Your task to perform on an android device: set default search engine in the chrome app Image 0: 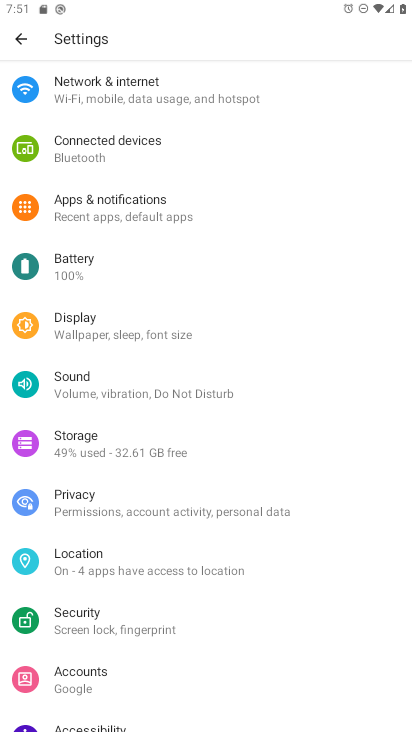
Step 0: press home button
Your task to perform on an android device: set default search engine in the chrome app Image 1: 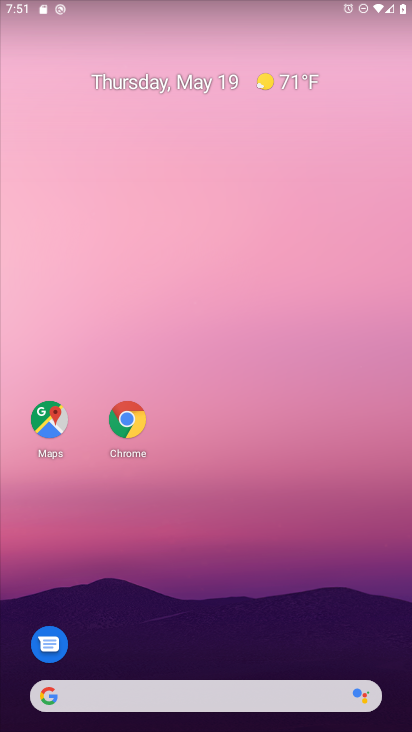
Step 1: drag from (140, 668) to (261, 220)
Your task to perform on an android device: set default search engine in the chrome app Image 2: 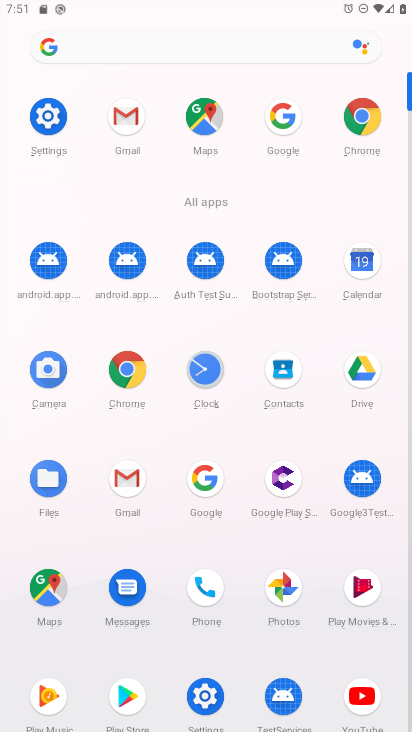
Step 2: click (365, 121)
Your task to perform on an android device: set default search engine in the chrome app Image 3: 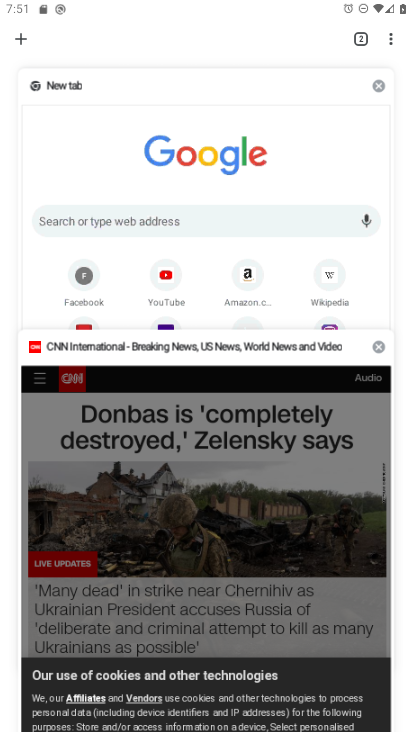
Step 3: click (392, 44)
Your task to perform on an android device: set default search engine in the chrome app Image 4: 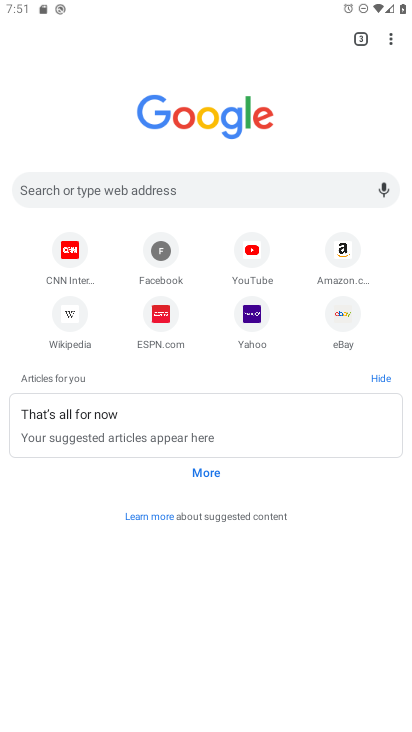
Step 4: click (386, 41)
Your task to perform on an android device: set default search engine in the chrome app Image 5: 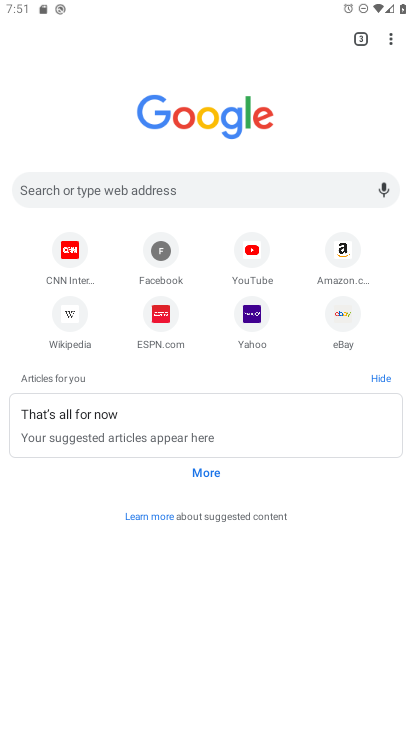
Step 5: click (390, 37)
Your task to perform on an android device: set default search engine in the chrome app Image 6: 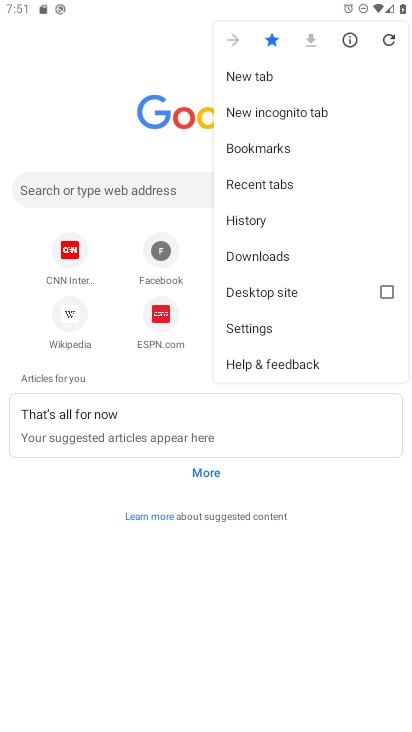
Step 6: click (262, 330)
Your task to perform on an android device: set default search engine in the chrome app Image 7: 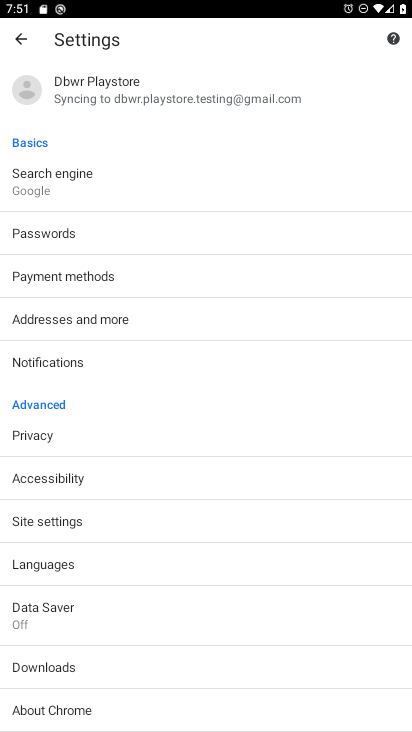
Step 7: click (55, 178)
Your task to perform on an android device: set default search engine in the chrome app Image 8: 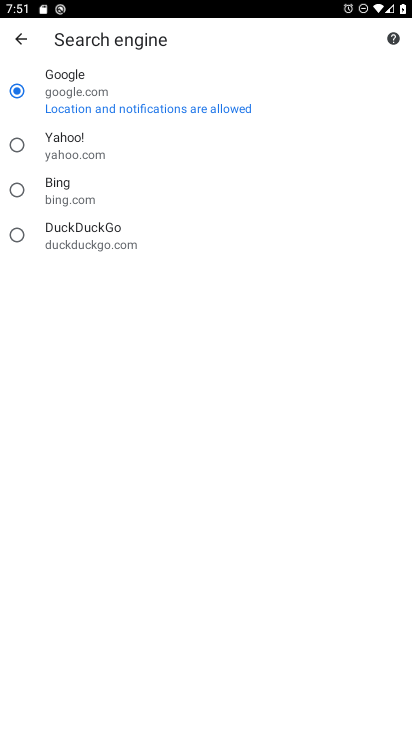
Step 8: task complete